Your task to perform on an android device: Open battery settings Image 0: 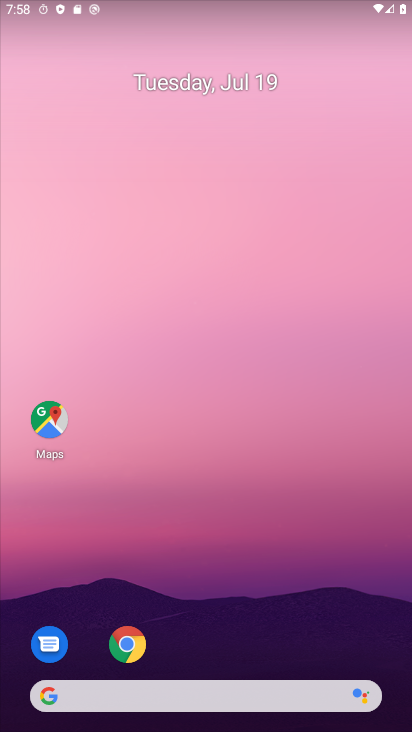
Step 0: drag from (205, 243) to (269, 17)
Your task to perform on an android device: Open battery settings Image 1: 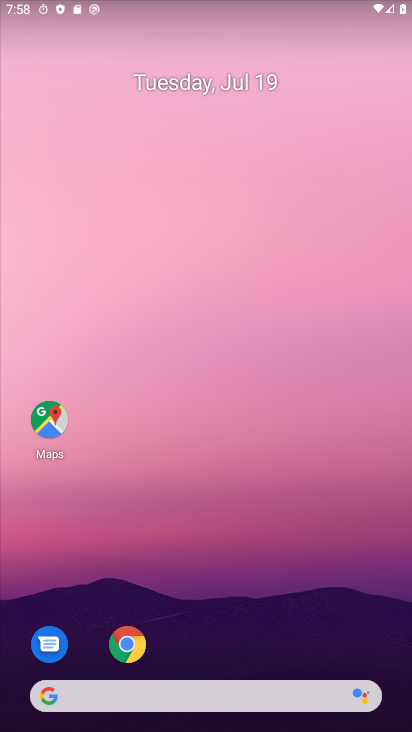
Step 1: drag from (23, 625) to (244, 9)
Your task to perform on an android device: Open battery settings Image 2: 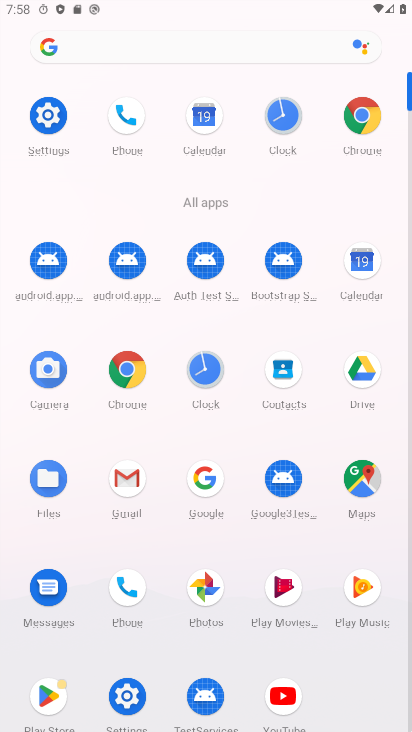
Step 2: click (120, 697)
Your task to perform on an android device: Open battery settings Image 3: 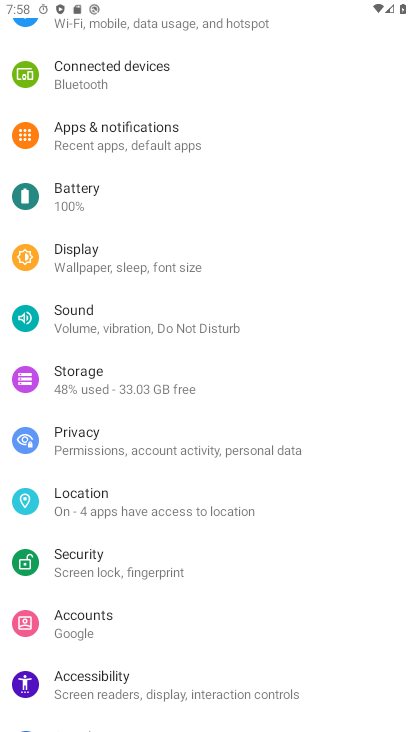
Step 3: click (89, 195)
Your task to perform on an android device: Open battery settings Image 4: 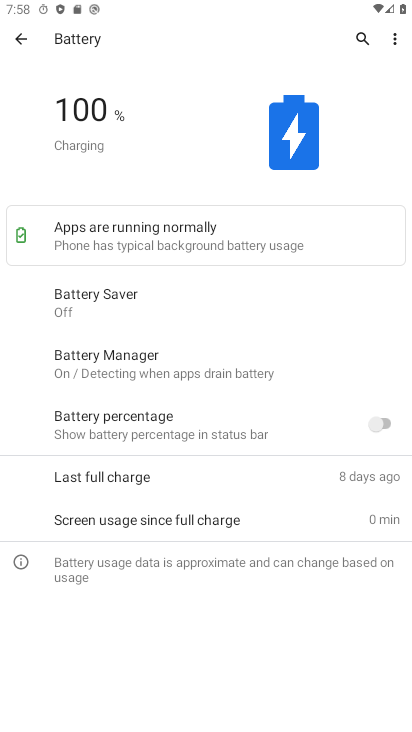
Step 4: task complete